Your task to perform on an android device: all mails in gmail Image 0: 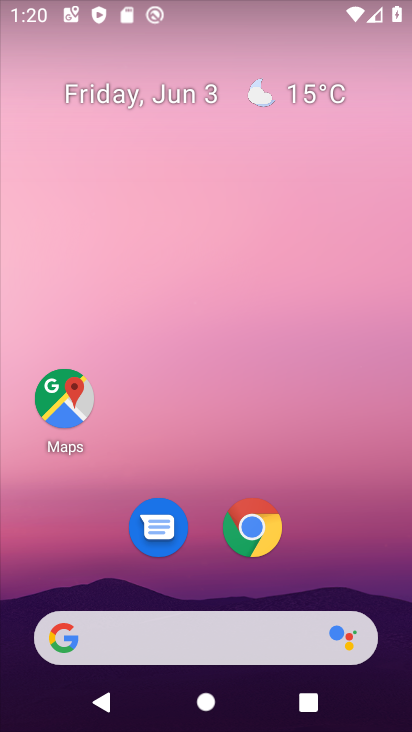
Step 0: drag from (347, 552) to (367, 156)
Your task to perform on an android device: all mails in gmail Image 1: 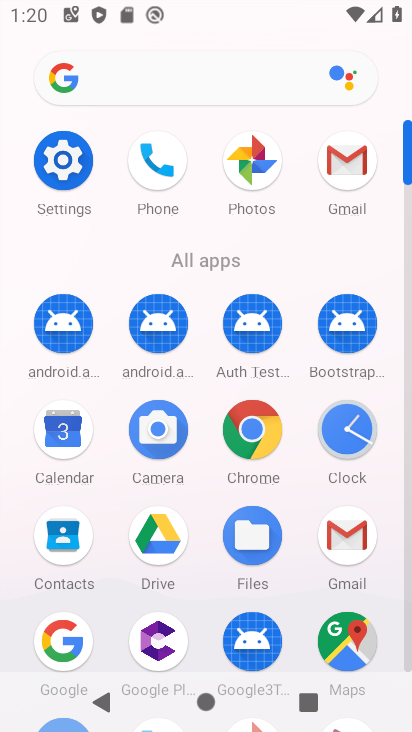
Step 1: click (340, 186)
Your task to perform on an android device: all mails in gmail Image 2: 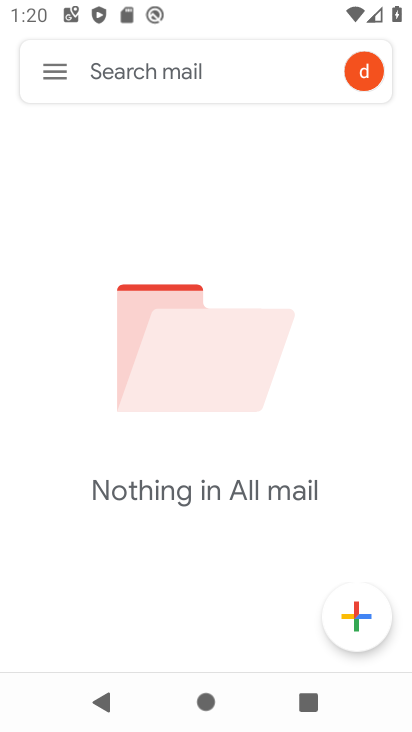
Step 2: task complete